Your task to perform on an android device: Open calendar and show me the third week of next month Image 0: 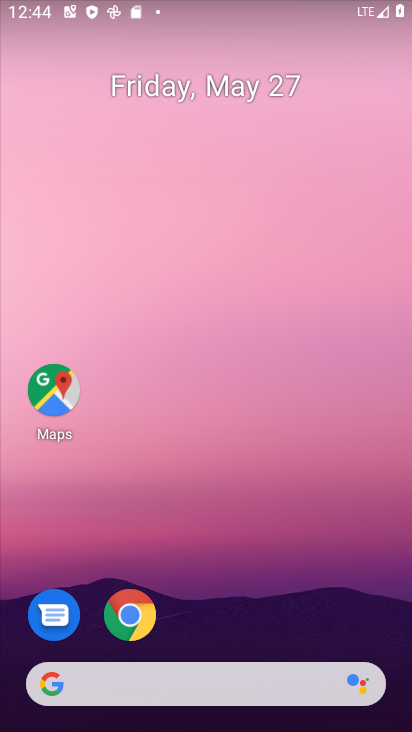
Step 0: drag from (150, 666) to (267, 100)
Your task to perform on an android device: Open calendar and show me the third week of next month Image 1: 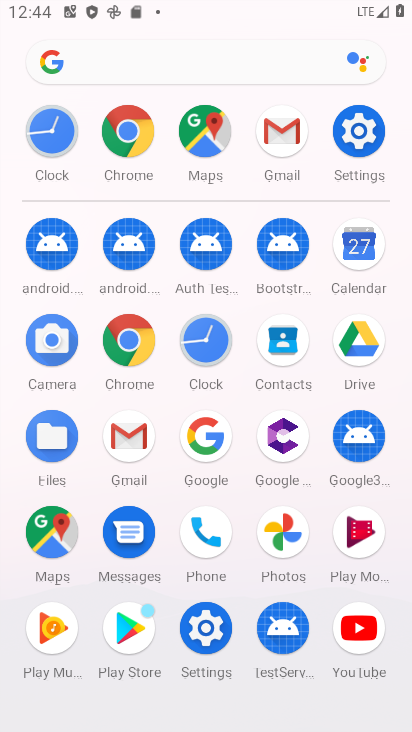
Step 1: click (362, 252)
Your task to perform on an android device: Open calendar and show me the third week of next month Image 2: 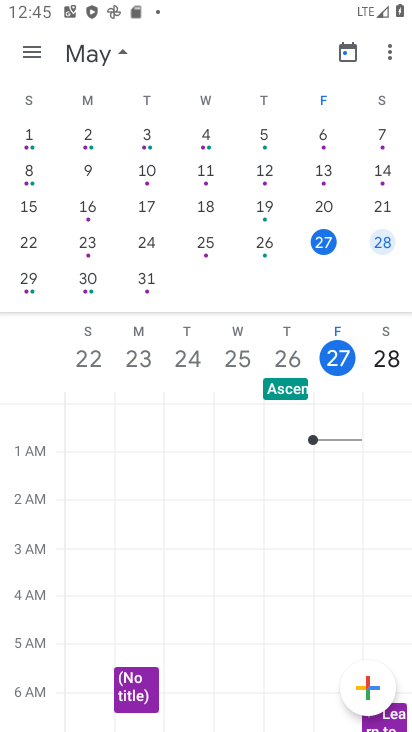
Step 2: click (123, 51)
Your task to perform on an android device: Open calendar and show me the third week of next month Image 3: 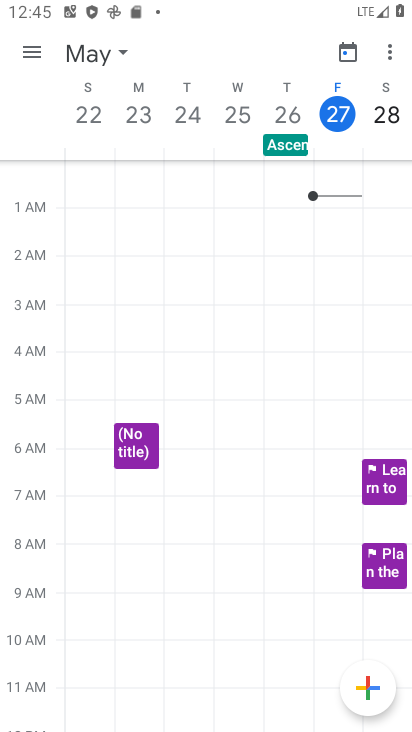
Step 3: drag from (356, 216) to (169, 193)
Your task to perform on an android device: Open calendar and show me the third week of next month Image 4: 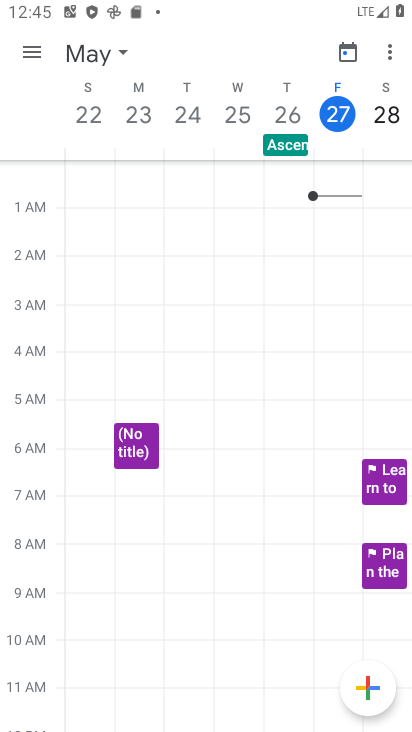
Step 4: click (117, 45)
Your task to perform on an android device: Open calendar and show me the third week of next month Image 5: 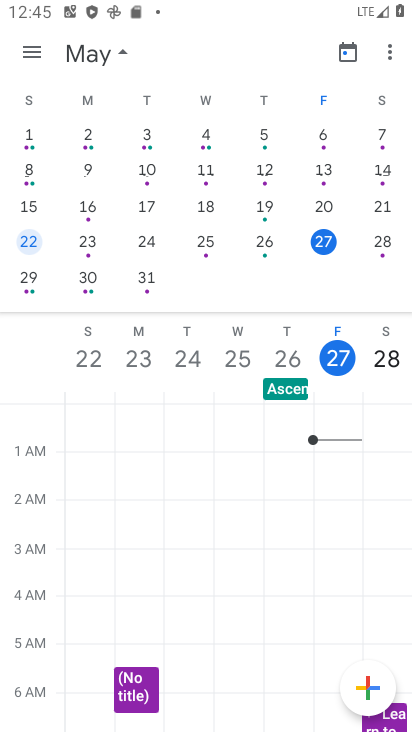
Step 5: drag from (201, 204) to (75, 196)
Your task to perform on an android device: Open calendar and show me the third week of next month Image 6: 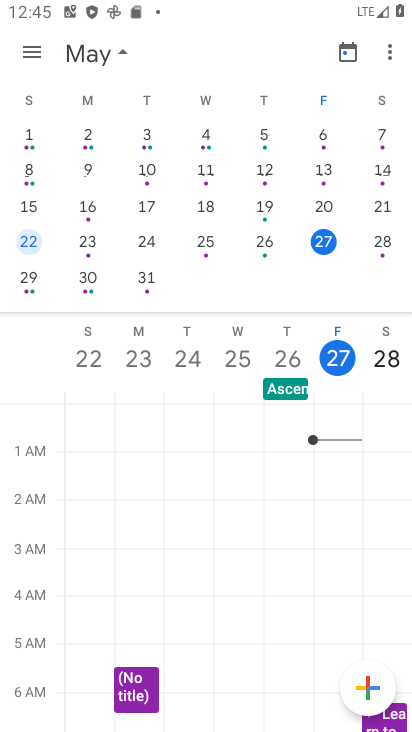
Step 6: drag from (347, 176) to (17, 275)
Your task to perform on an android device: Open calendar and show me the third week of next month Image 7: 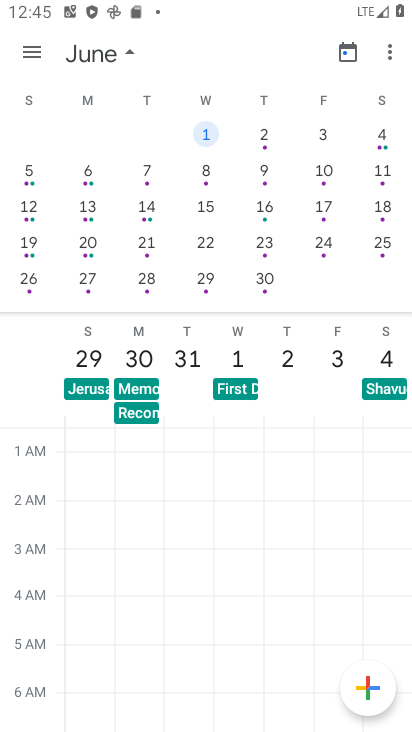
Step 7: click (272, 208)
Your task to perform on an android device: Open calendar and show me the third week of next month Image 8: 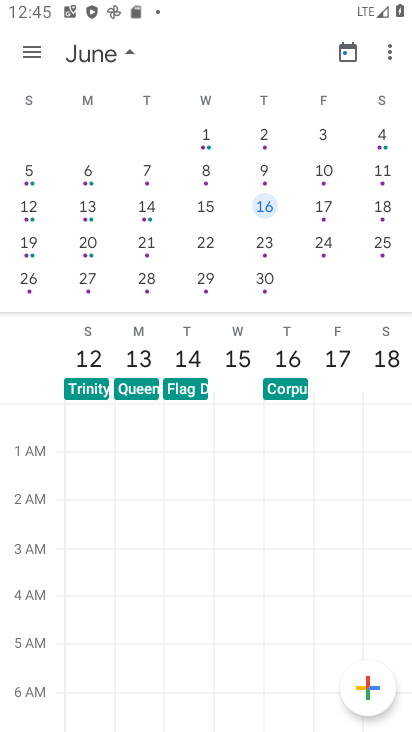
Step 8: task complete